Your task to perform on an android device: Open location settings Image 0: 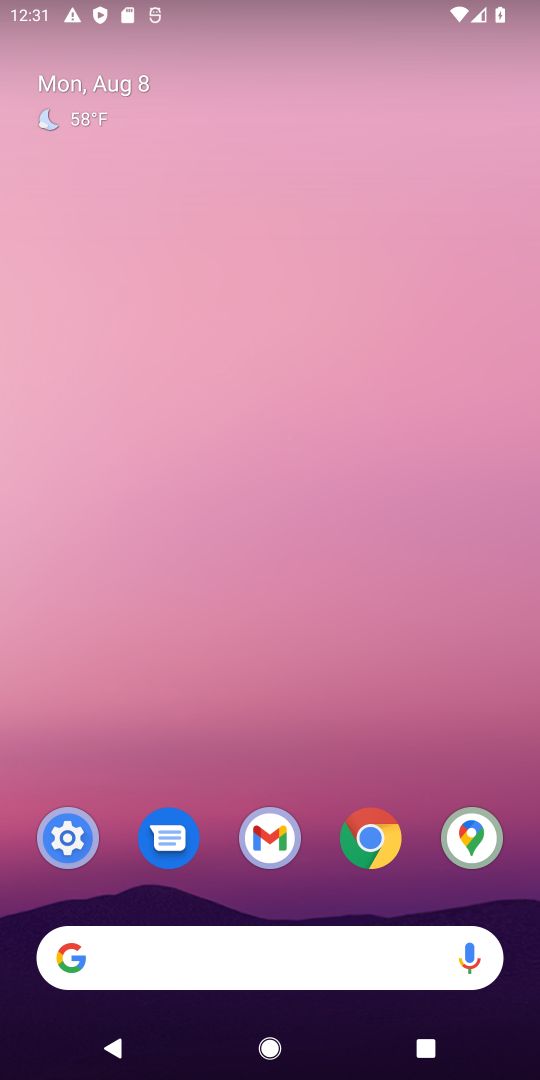
Step 0: click (63, 839)
Your task to perform on an android device: Open location settings Image 1: 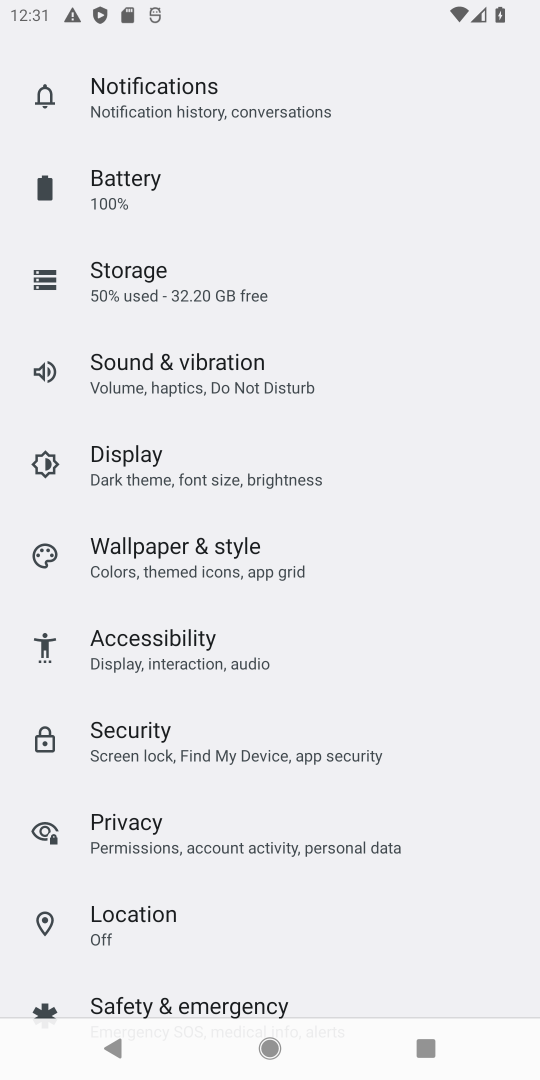
Step 1: click (126, 931)
Your task to perform on an android device: Open location settings Image 2: 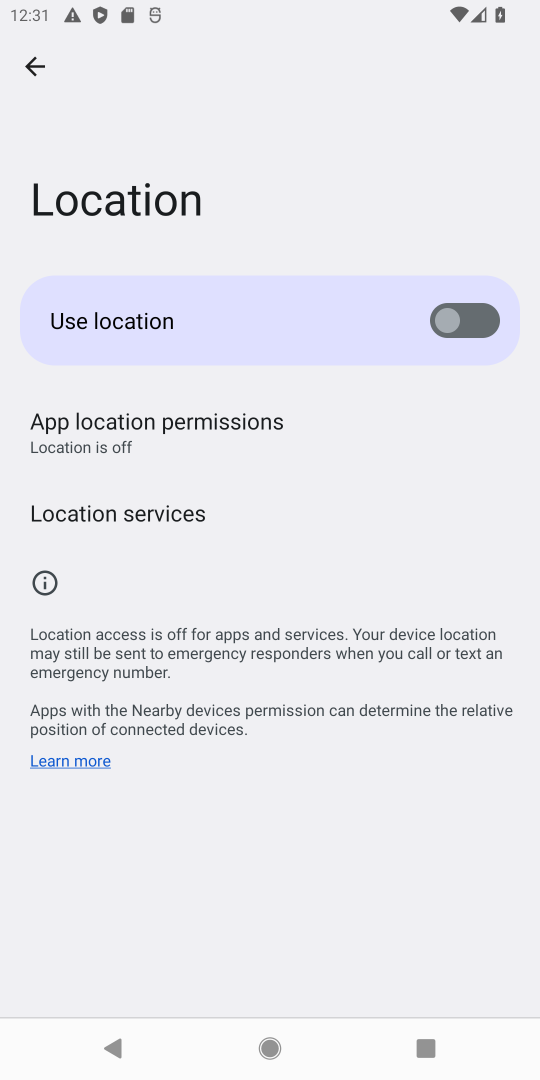
Step 2: task complete